Your task to perform on an android device: create a new album in the google photos Image 0: 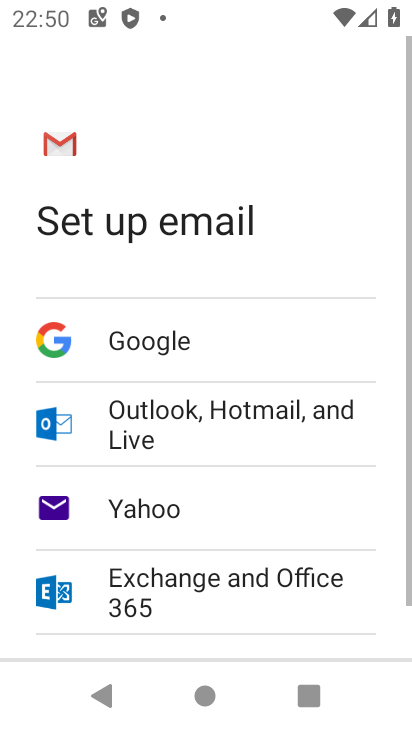
Step 0: press home button
Your task to perform on an android device: create a new album in the google photos Image 1: 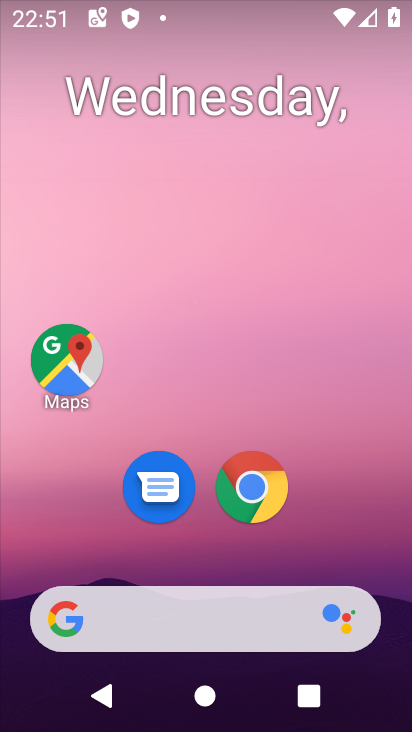
Step 1: drag from (154, 347) to (206, 4)
Your task to perform on an android device: create a new album in the google photos Image 2: 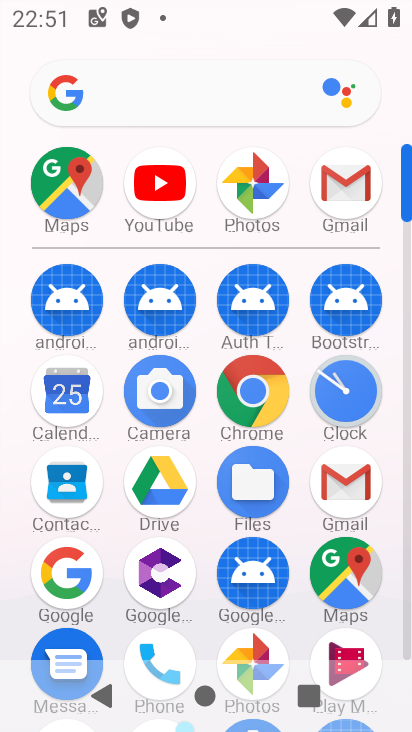
Step 2: click (263, 191)
Your task to perform on an android device: create a new album in the google photos Image 3: 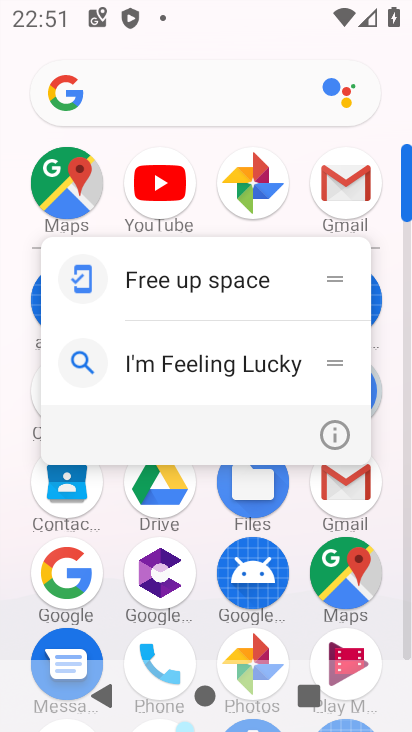
Step 3: click (260, 179)
Your task to perform on an android device: create a new album in the google photos Image 4: 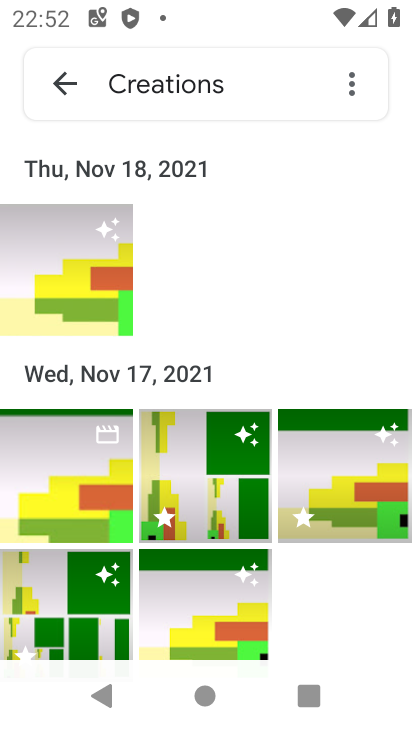
Step 4: click (64, 254)
Your task to perform on an android device: create a new album in the google photos Image 5: 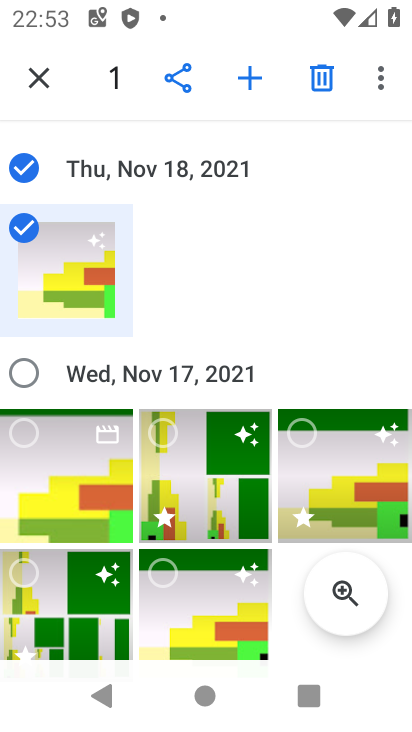
Step 5: click (255, 71)
Your task to perform on an android device: create a new album in the google photos Image 6: 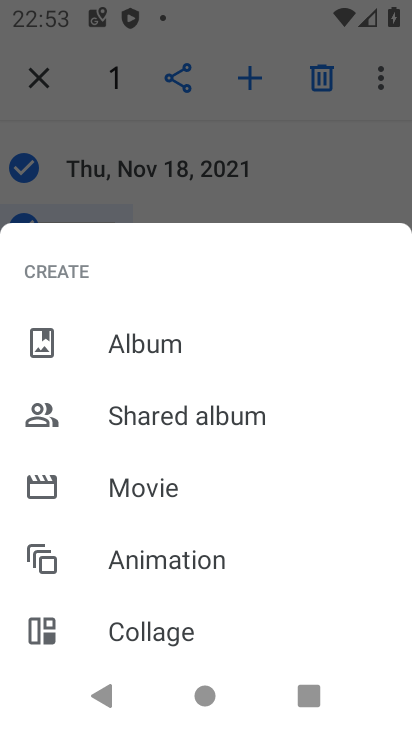
Step 6: click (150, 349)
Your task to perform on an android device: create a new album in the google photos Image 7: 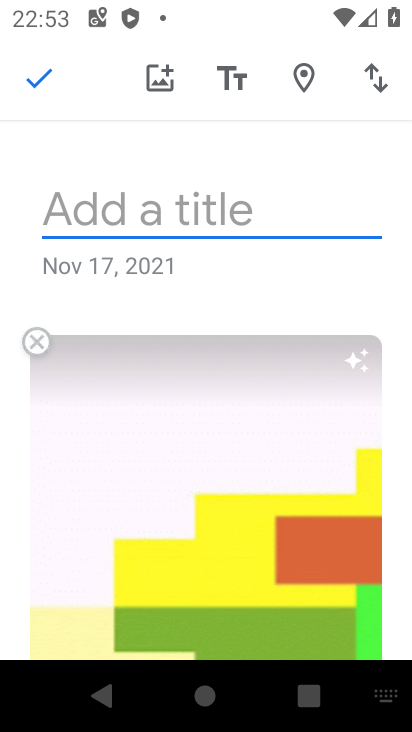
Step 7: type "kjnl"
Your task to perform on an android device: create a new album in the google photos Image 8: 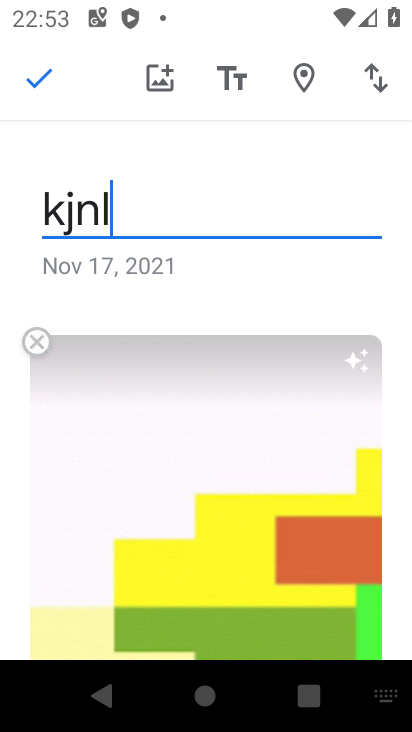
Step 8: click (41, 67)
Your task to perform on an android device: create a new album in the google photos Image 9: 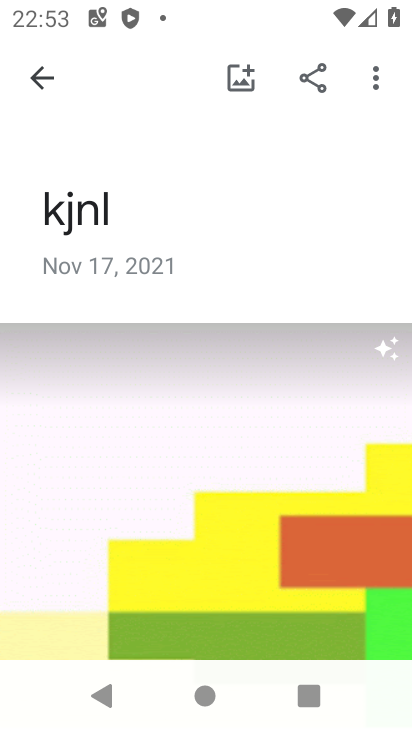
Step 9: task complete